Your task to perform on an android device: Open Youtube and go to the subscriptions tab Image 0: 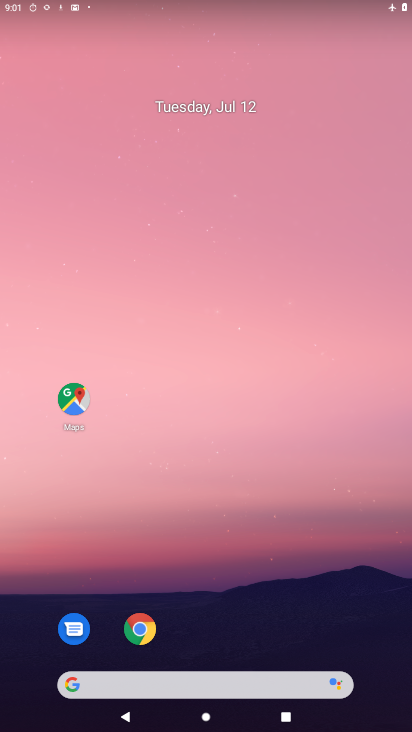
Step 0: drag from (288, 726) to (146, 159)
Your task to perform on an android device: Open Youtube and go to the subscriptions tab Image 1: 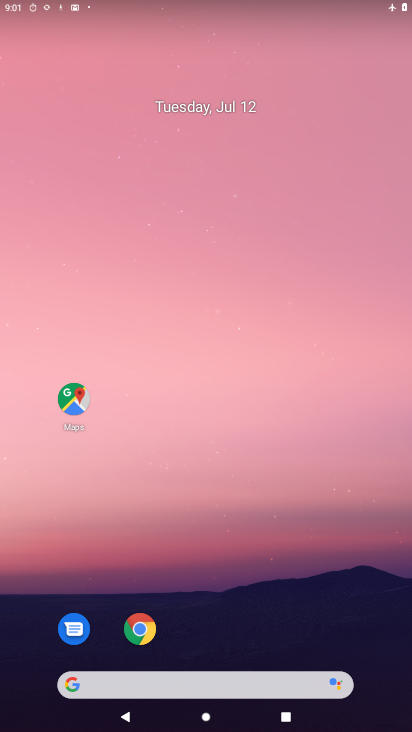
Step 1: drag from (334, 604) to (223, 15)
Your task to perform on an android device: Open Youtube and go to the subscriptions tab Image 2: 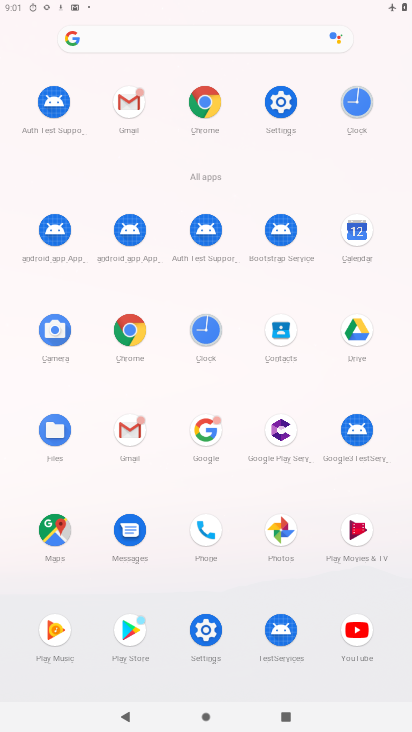
Step 2: click (364, 628)
Your task to perform on an android device: Open Youtube and go to the subscriptions tab Image 3: 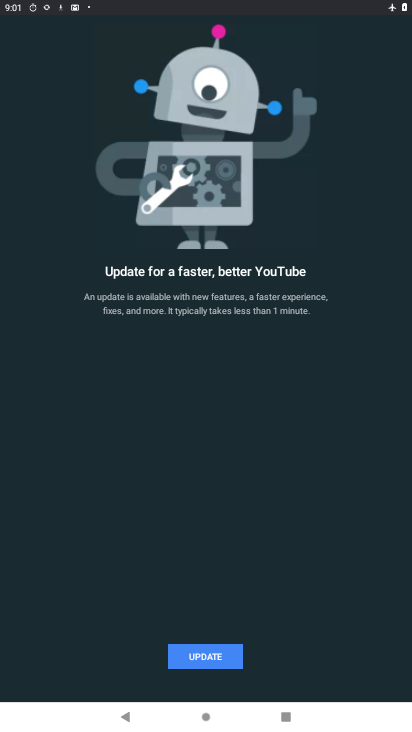
Step 3: click (199, 653)
Your task to perform on an android device: Open Youtube and go to the subscriptions tab Image 4: 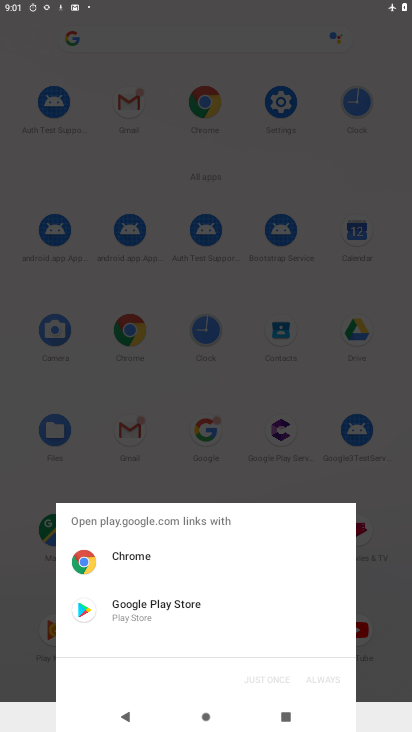
Step 4: click (141, 552)
Your task to perform on an android device: Open Youtube and go to the subscriptions tab Image 5: 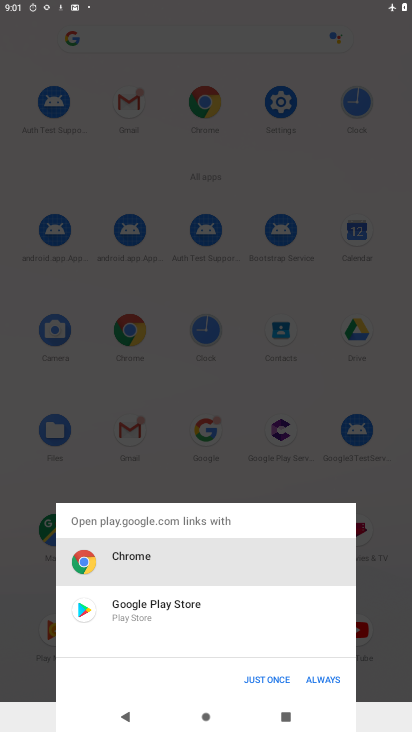
Step 5: click (171, 555)
Your task to perform on an android device: Open Youtube and go to the subscriptions tab Image 6: 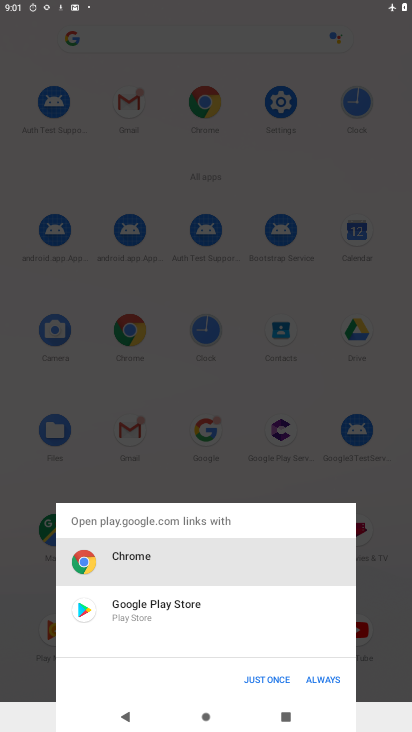
Step 6: click (259, 680)
Your task to perform on an android device: Open Youtube and go to the subscriptions tab Image 7: 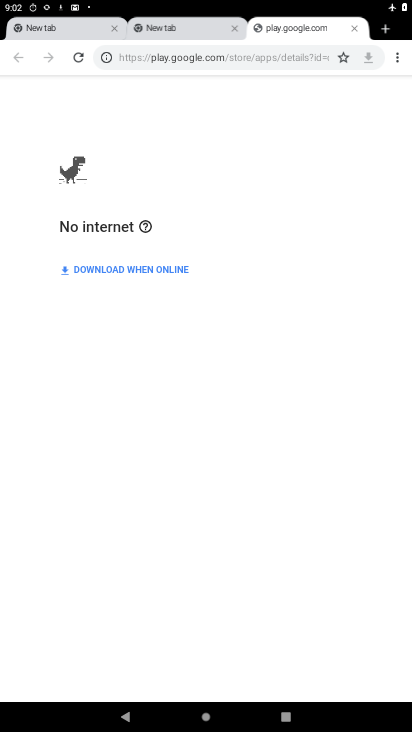
Step 7: task complete